Your task to perform on an android device: turn notification dots on Image 0: 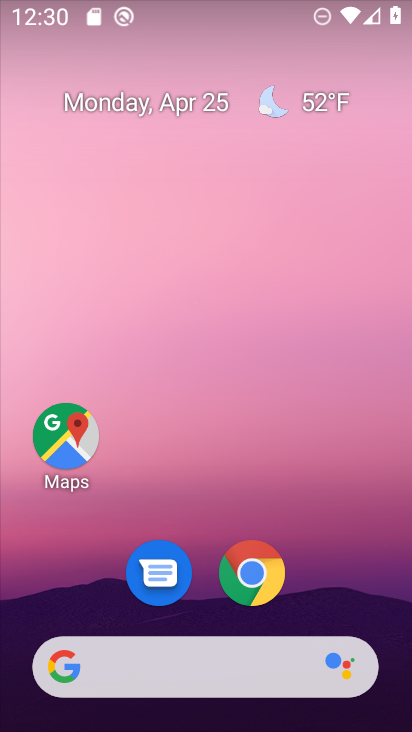
Step 0: drag from (253, 726) to (239, 194)
Your task to perform on an android device: turn notification dots on Image 1: 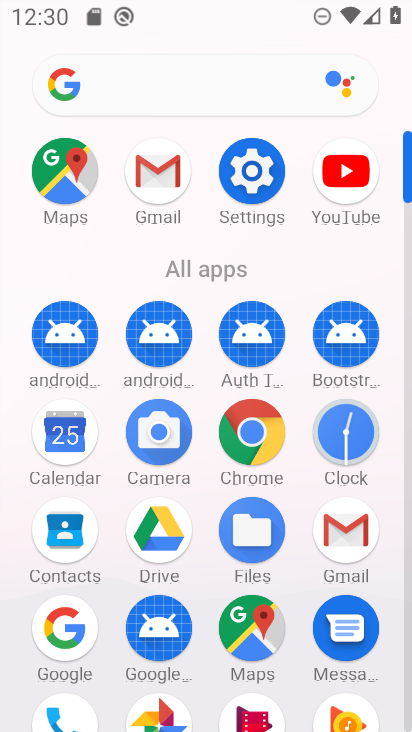
Step 1: click (253, 174)
Your task to perform on an android device: turn notification dots on Image 2: 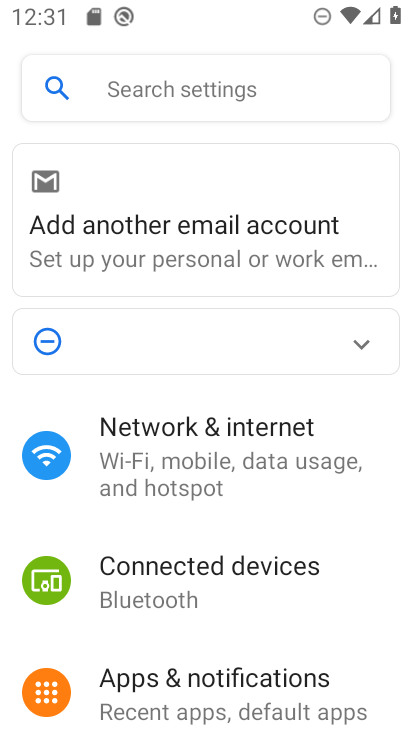
Step 2: click (242, 685)
Your task to perform on an android device: turn notification dots on Image 3: 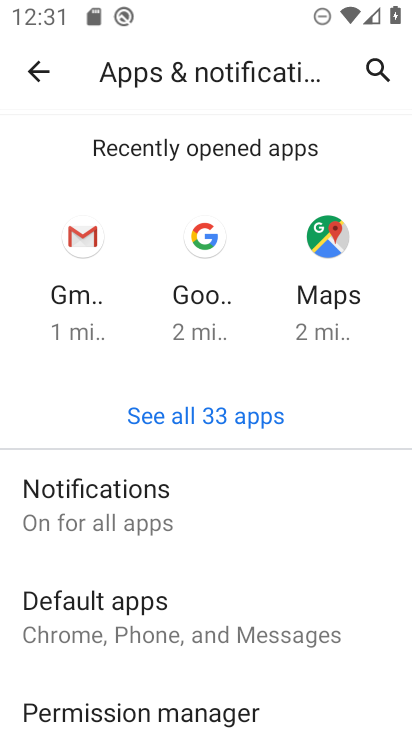
Step 3: click (108, 514)
Your task to perform on an android device: turn notification dots on Image 4: 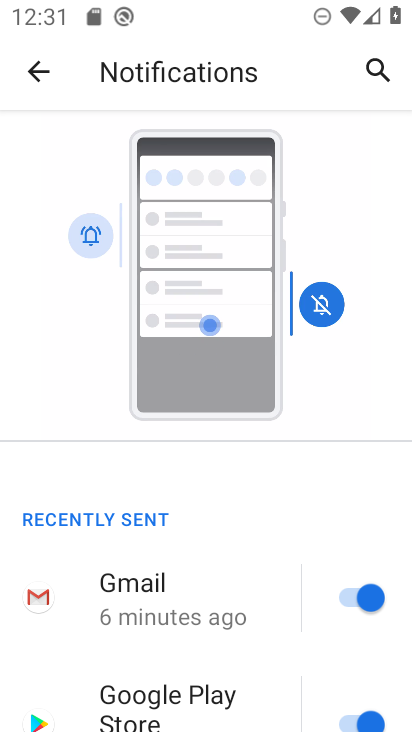
Step 4: drag from (171, 668) to (180, 234)
Your task to perform on an android device: turn notification dots on Image 5: 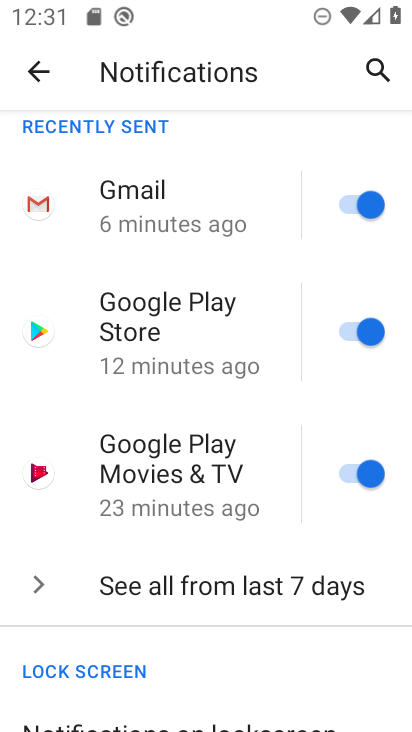
Step 5: drag from (183, 685) to (183, 269)
Your task to perform on an android device: turn notification dots on Image 6: 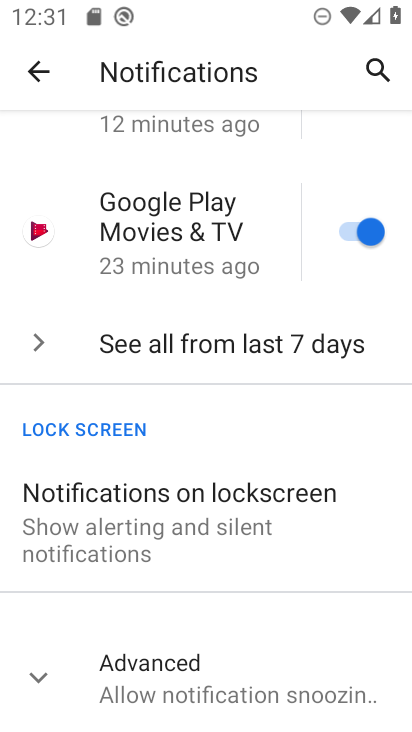
Step 6: click (174, 681)
Your task to perform on an android device: turn notification dots on Image 7: 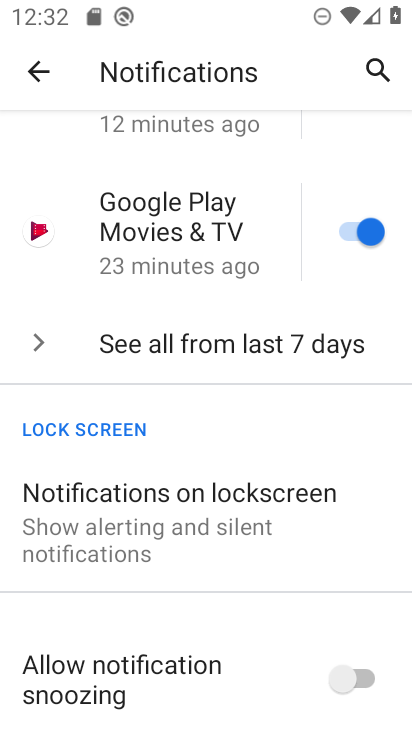
Step 7: drag from (201, 678) to (219, 270)
Your task to perform on an android device: turn notification dots on Image 8: 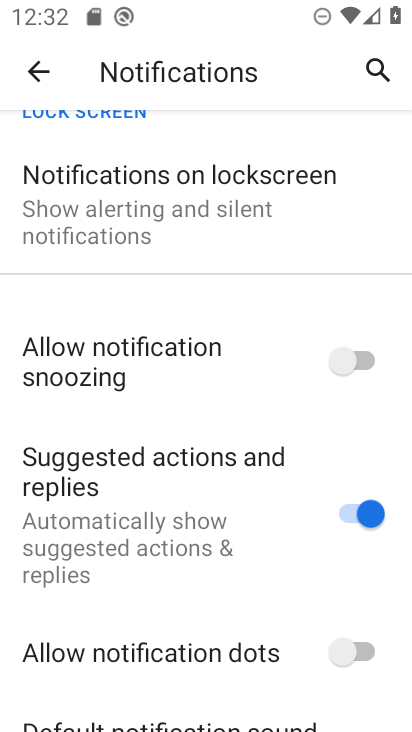
Step 8: click (359, 648)
Your task to perform on an android device: turn notification dots on Image 9: 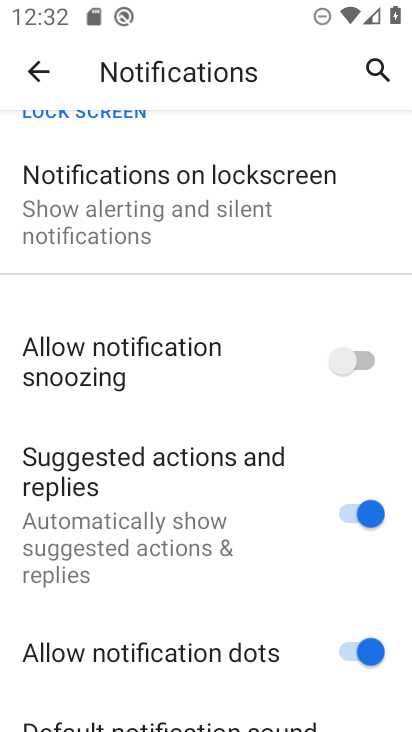
Step 9: task complete